Your task to perform on an android device: turn off notifications in google photos Image 0: 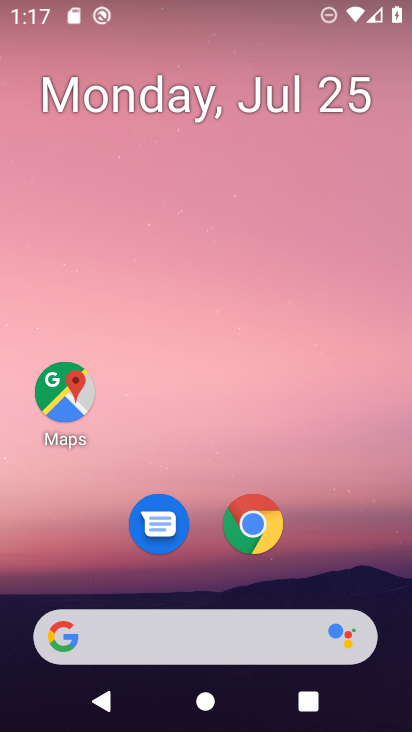
Step 0: drag from (239, 571) to (351, 161)
Your task to perform on an android device: turn off notifications in google photos Image 1: 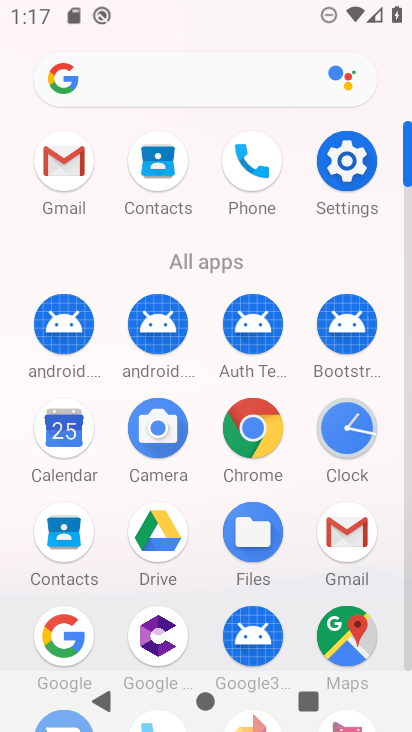
Step 1: drag from (209, 593) to (376, 69)
Your task to perform on an android device: turn off notifications in google photos Image 2: 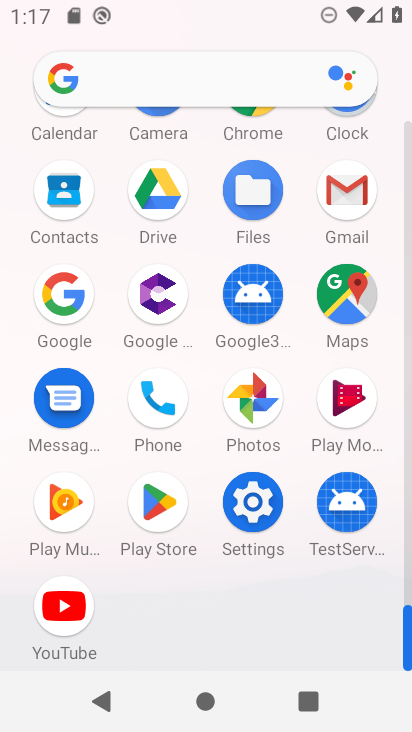
Step 2: click (259, 401)
Your task to perform on an android device: turn off notifications in google photos Image 3: 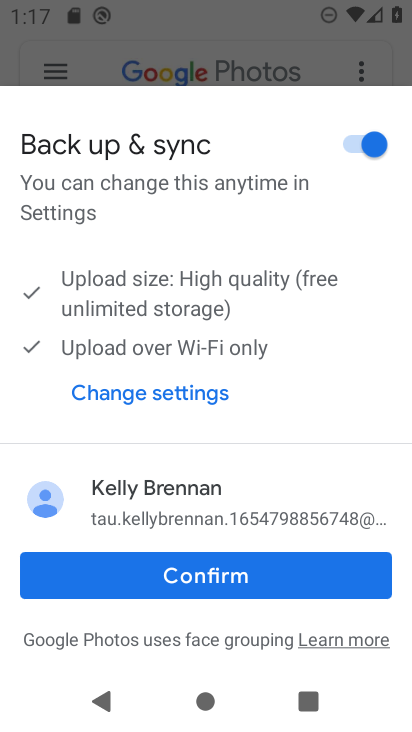
Step 3: click (221, 571)
Your task to perform on an android device: turn off notifications in google photos Image 4: 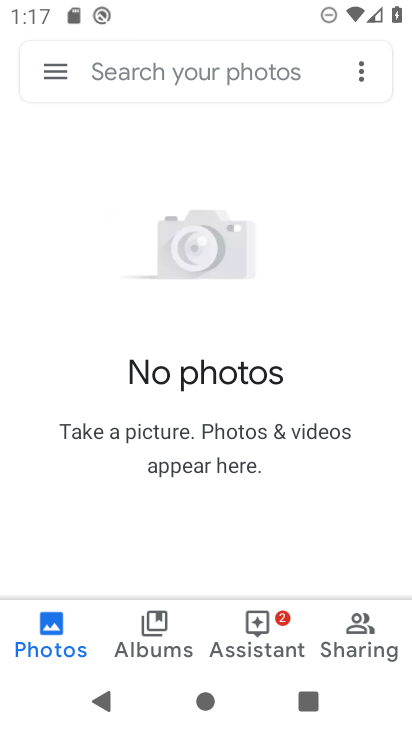
Step 4: click (62, 67)
Your task to perform on an android device: turn off notifications in google photos Image 5: 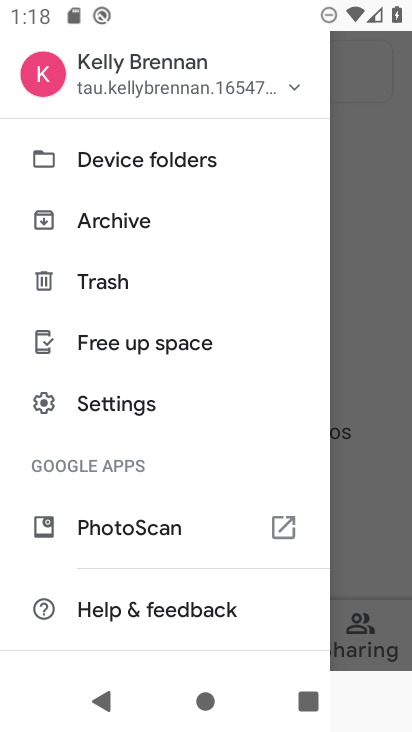
Step 5: click (121, 405)
Your task to perform on an android device: turn off notifications in google photos Image 6: 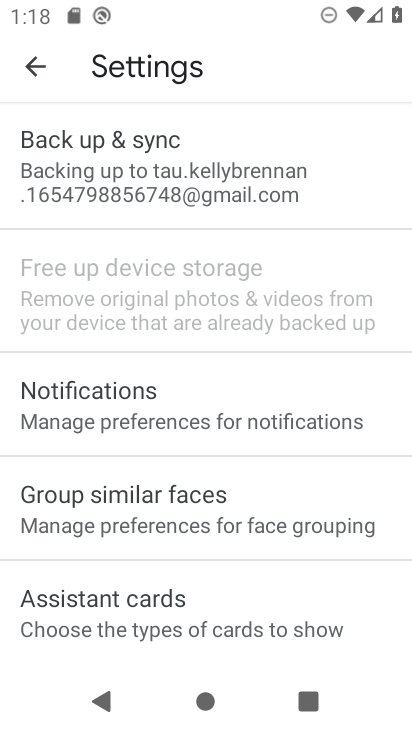
Step 6: click (156, 397)
Your task to perform on an android device: turn off notifications in google photos Image 7: 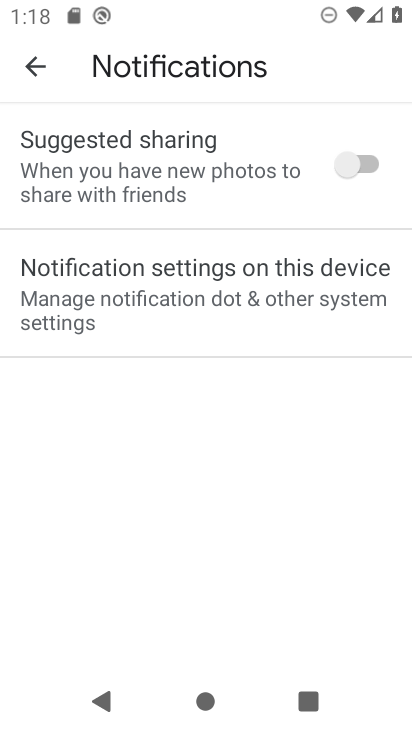
Step 7: click (252, 298)
Your task to perform on an android device: turn off notifications in google photos Image 8: 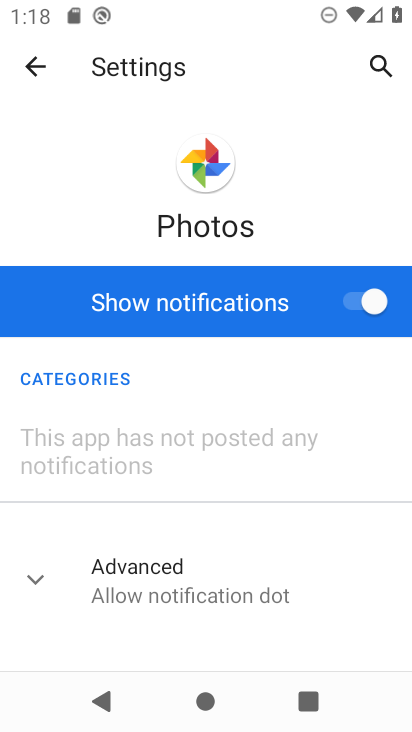
Step 8: click (358, 299)
Your task to perform on an android device: turn off notifications in google photos Image 9: 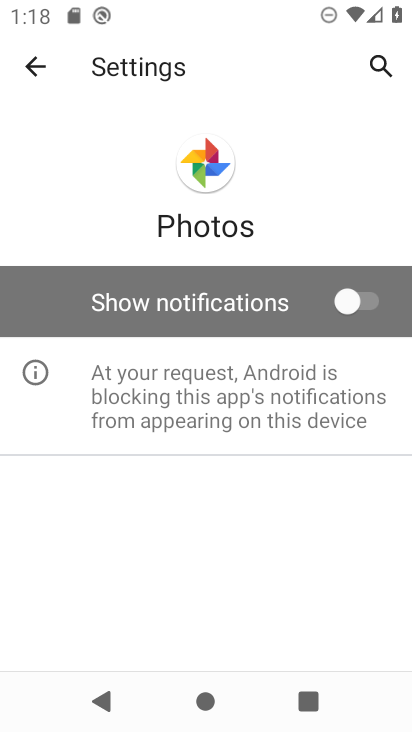
Step 9: task complete